Your task to perform on an android device: Open calendar and show me the second week of next month Image 0: 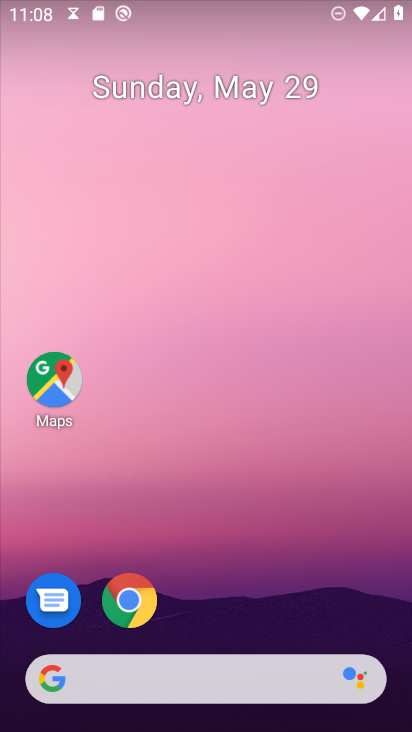
Step 0: drag from (223, 729) to (222, 115)
Your task to perform on an android device: Open calendar and show me the second week of next month Image 1: 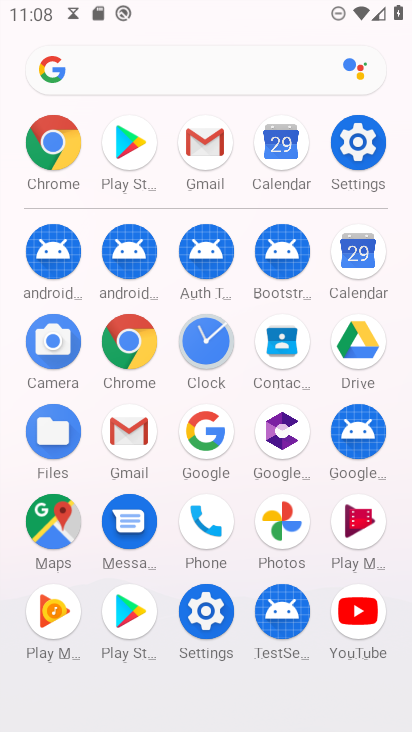
Step 1: click (364, 251)
Your task to perform on an android device: Open calendar and show me the second week of next month Image 2: 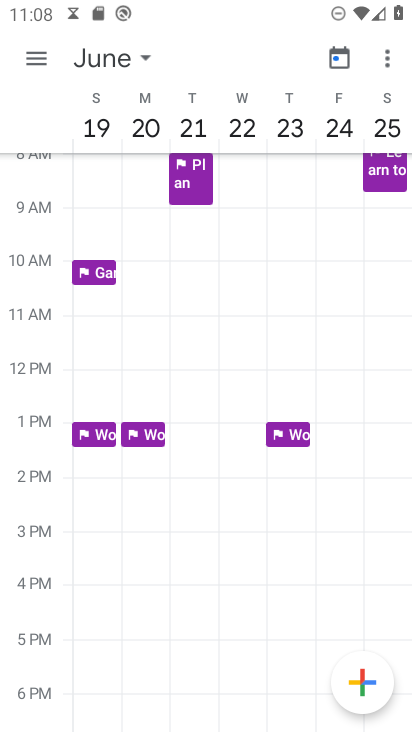
Step 2: click (142, 56)
Your task to perform on an android device: Open calendar and show me the second week of next month Image 3: 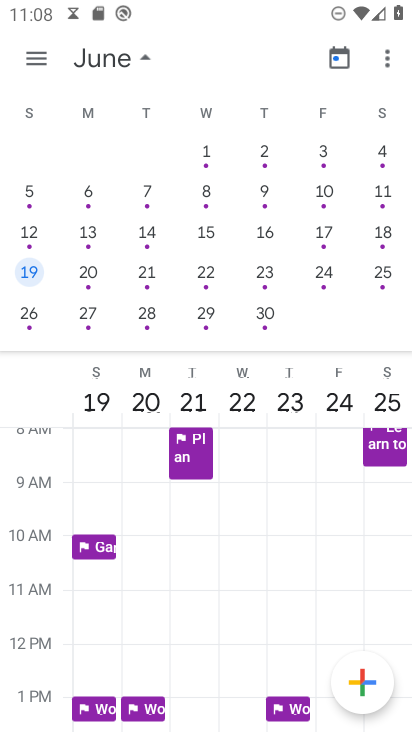
Step 3: click (84, 228)
Your task to perform on an android device: Open calendar and show me the second week of next month Image 4: 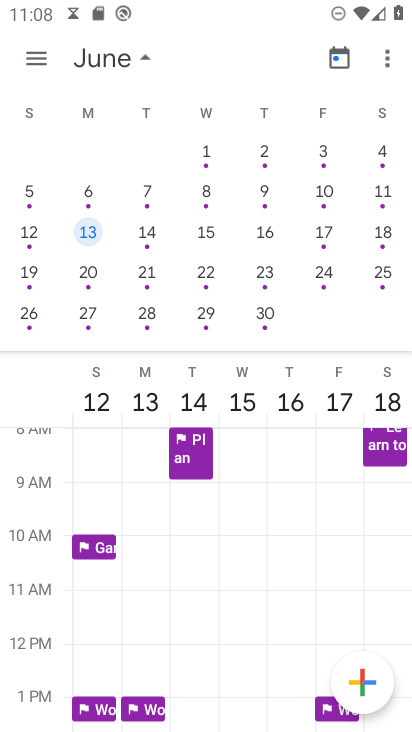
Step 4: click (41, 64)
Your task to perform on an android device: Open calendar and show me the second week of next month Image 5: 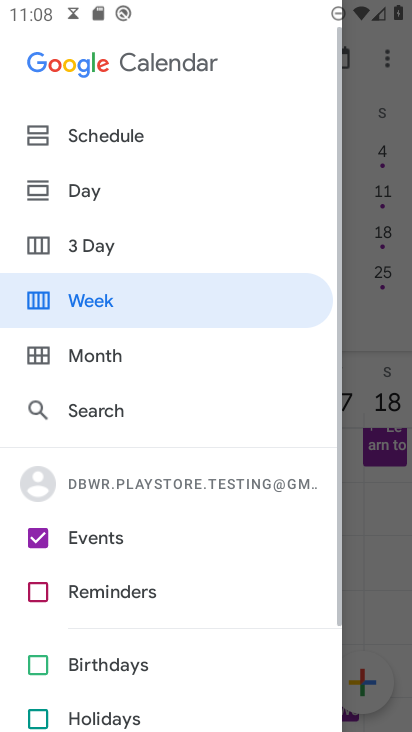
Step 5: click (91, 304)
Your task to perform on an android device: Open calendar and show me the second week of next month Image 6: 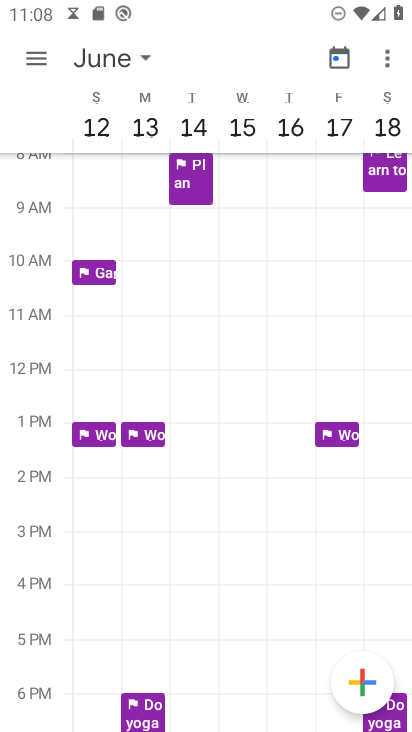
Step 6: task complete